Your task to perform on an android device: Check the news Image 0: 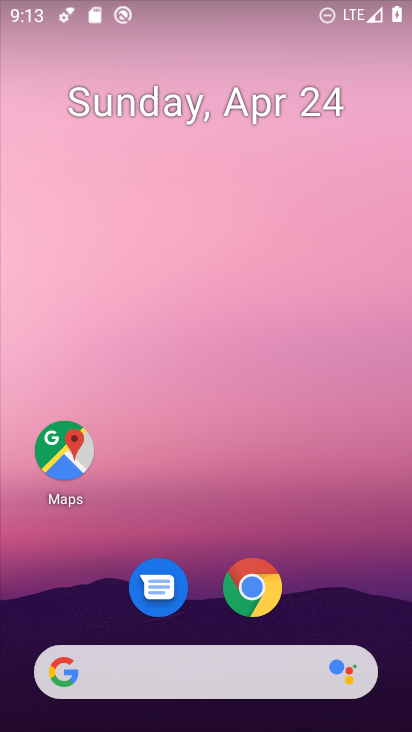
Step 0: drag from (340, 510) to (302, 65)
Your task to perform on an android device: Check the news Image 1: 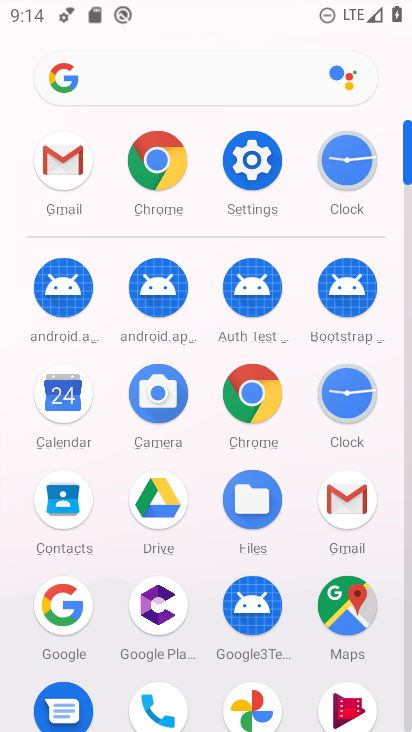
Step 1: click (162, 159)
Your task to perform on an android device: Check the news Image 2: 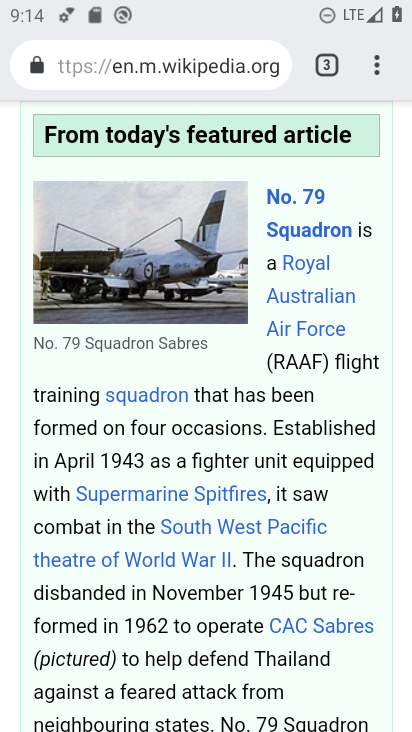
Step 2: click (194, 53)
Your task to perform on an android device: Check the news Image 3: 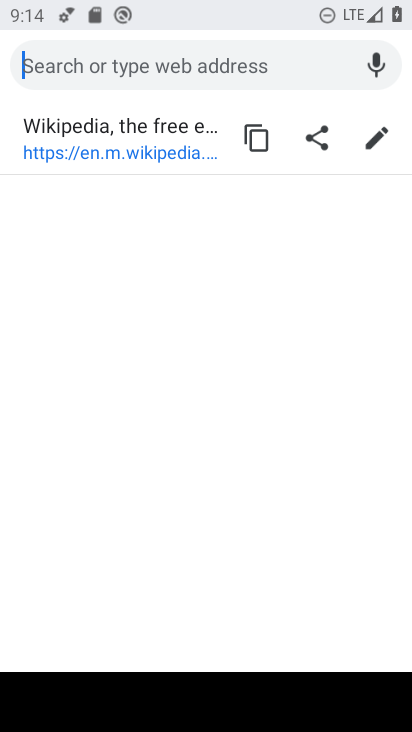
Step 3: type "news"
Your task to perform on an android device: Check the news Image 4: 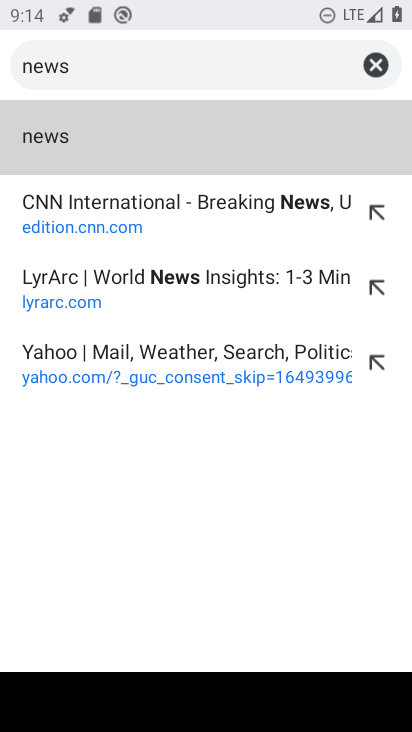
Step 4: click (64, 125)
Your task to perform on an android device: Check the news Image 5: 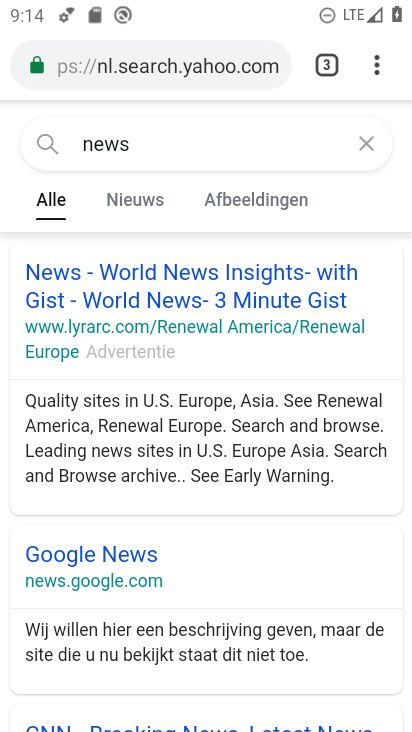
Step 5: click (67, 277)
Your task to perform on an android device: Check the news Image 6: 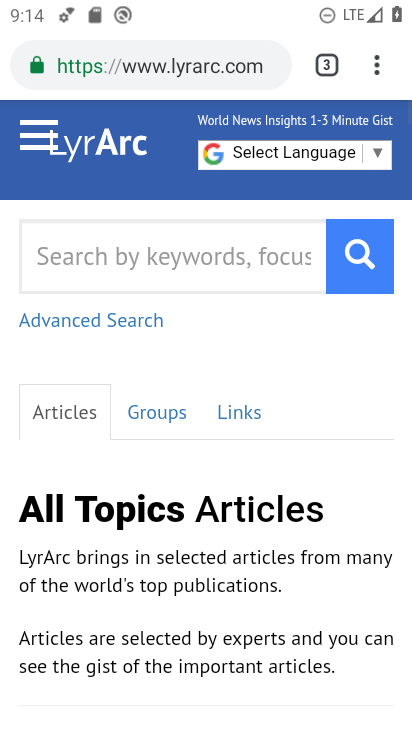
Step 6: task complete